Your task to perform on an android device: Open notification settings Image 0: 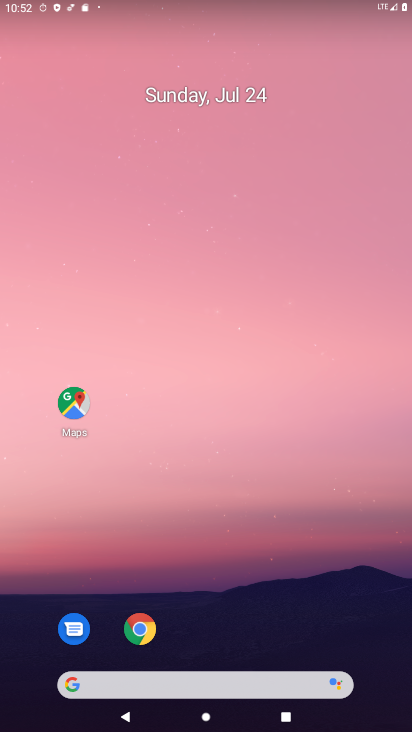
Step 0: drag from (243, 577) to (263, 131)
Your task to perform on an android device: Open notification settings Image 1: 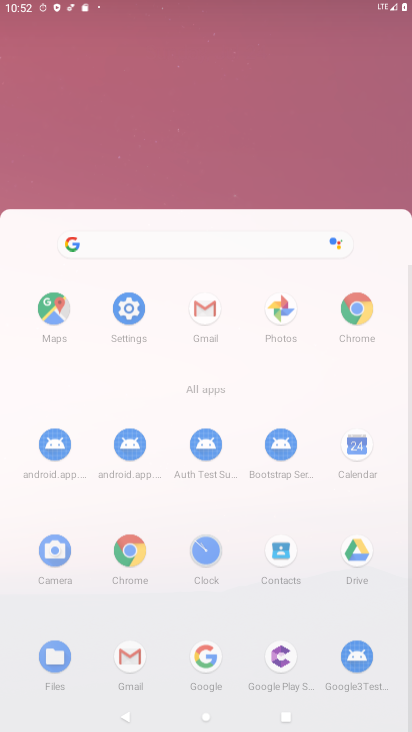
Step 1: drag from (268, 283) to (192, 82)
Your task to perform on an android device: Open notification settings Image 2: 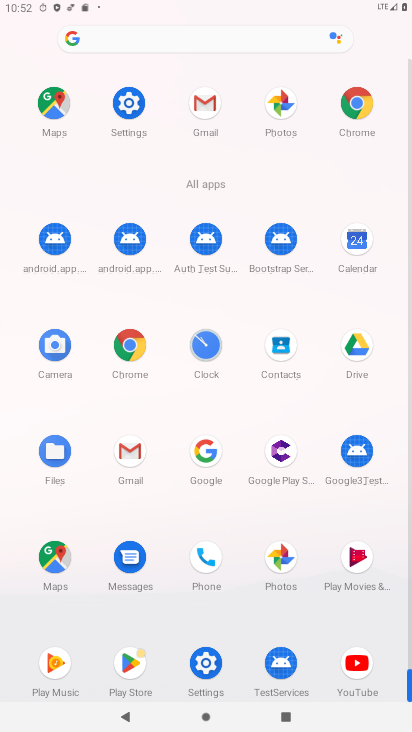
Step 2: drag from (219, 707) to (226, 331)
Your task to perform on an android device: Open notification settings Image 3: 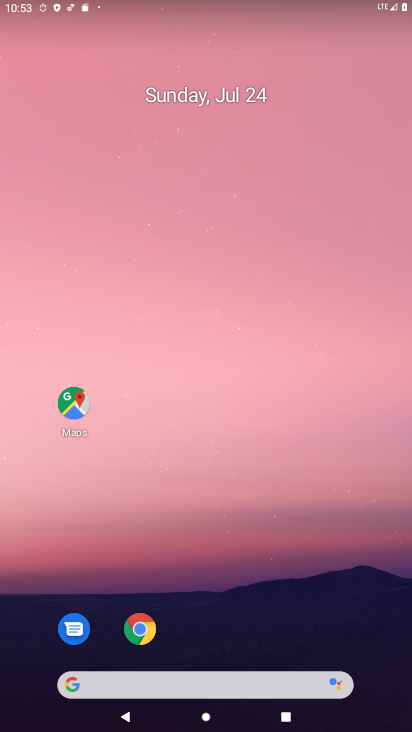
Step 3: drag from (251, 641) to (239, 312)
Your task to perform on an android device: Open notification settings Image 4: 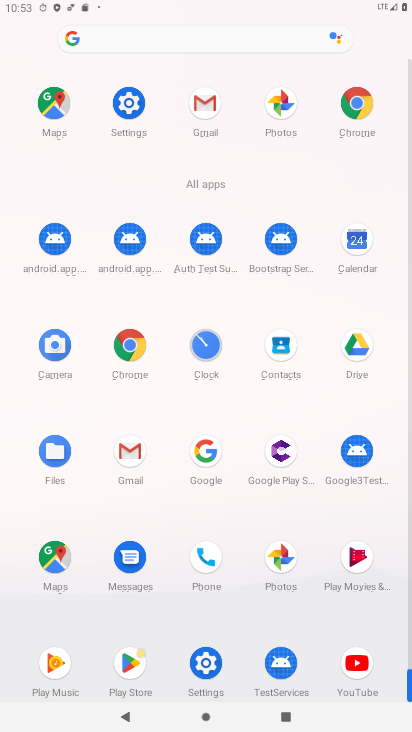
Step 4: click (208, 665)
Your task to perform on an android device: Open notification settings Image 5: 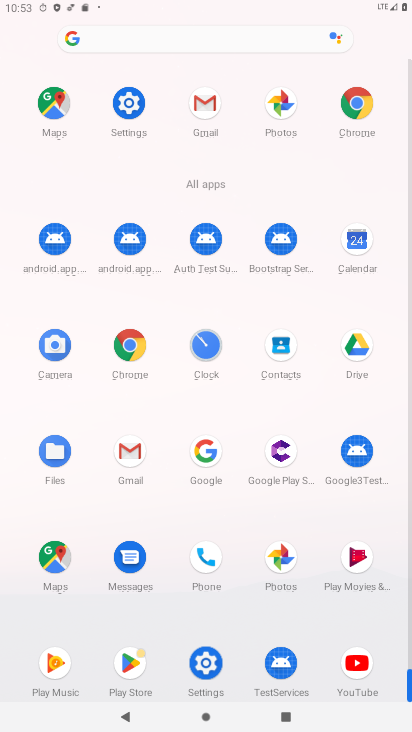
Step 5: click (206, 663)
Your task to perform on an android device: Open notification settings Image 6: 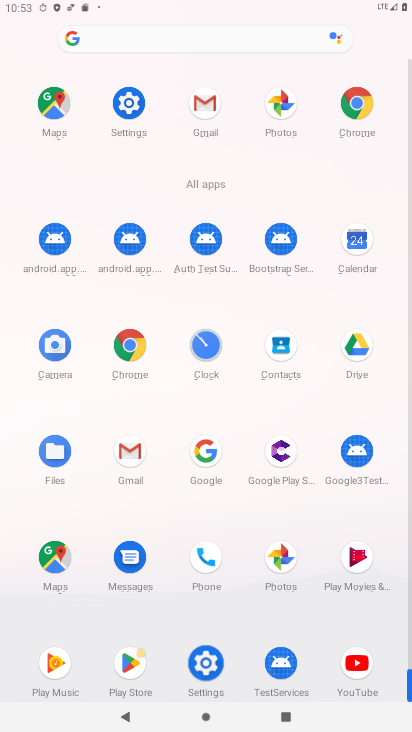
Step 6: click (207, 661)
Your task to perform on an android device: Open notification settings Image 7: 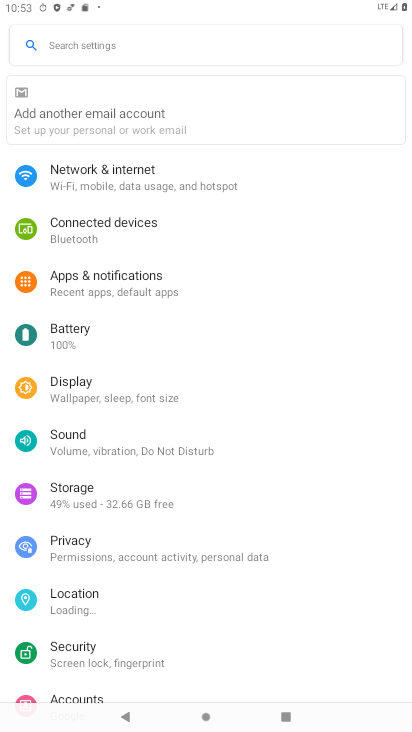
Step 7: click (129, 211)
Your task to perform on an android device: Open notification settings Image 8: 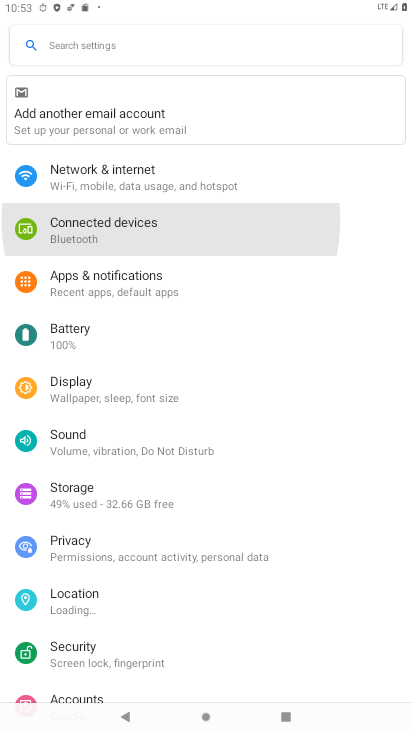
Step 8: click (128, 208)
Your task to perform on an android device: Open notification settings Image 9: 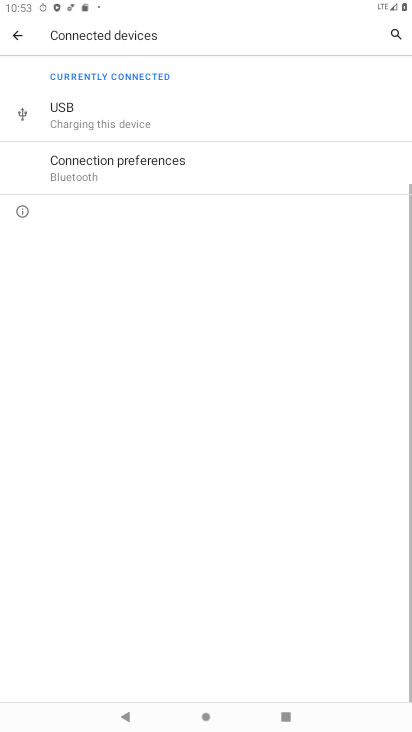
Step 9: click (107, 296)
Your task to perform on an android device: Open notification settings Image 10: 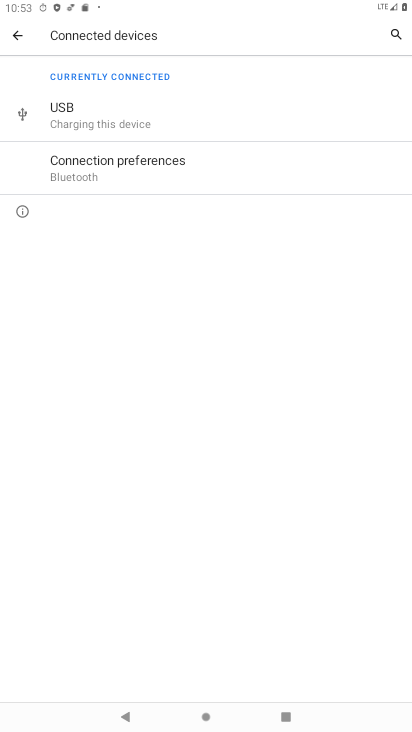
Step 10: click (4, 32)
Your task to perform on an android device: Open notification settings Image 11: 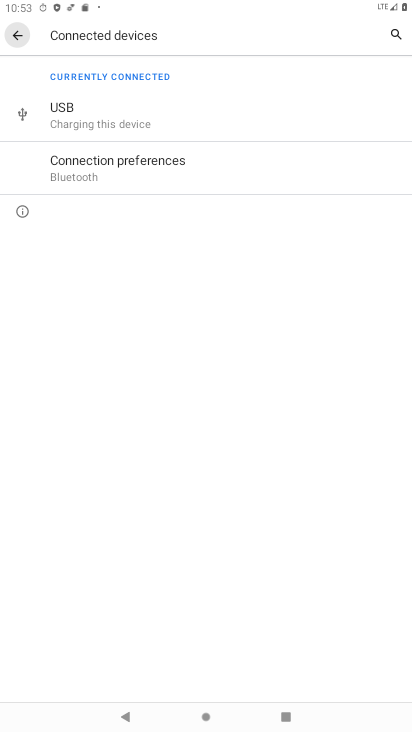
Step 11: click (12, 33)
Your task to perform on an android device: Open notification settings Image 12: 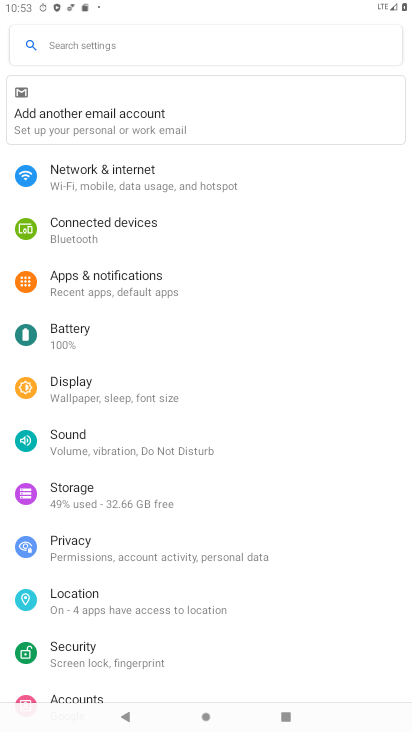
Step 12: click (109, 277)
Your task to perform on an android device: Open notification settings Image 13: 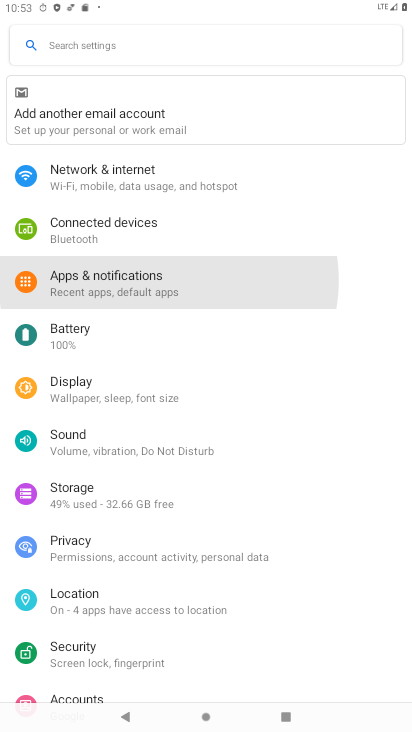
Step 13: click (109, 277)
Your task to perform on an android device: Open notification settings Image 14: 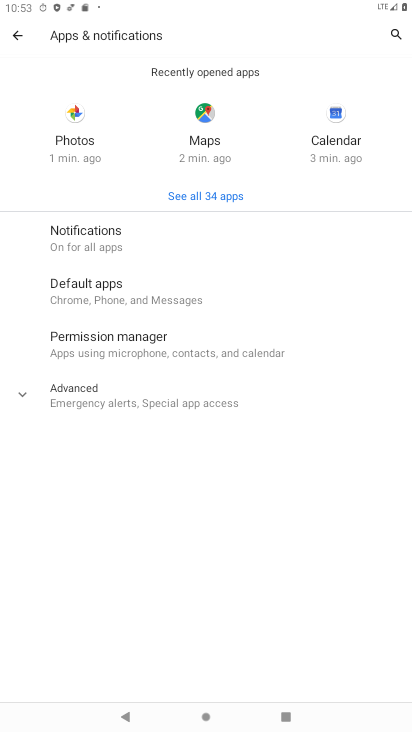
Step 14: click (87, 246)
Your task to perform on an android device: Open notification settings Image 15: 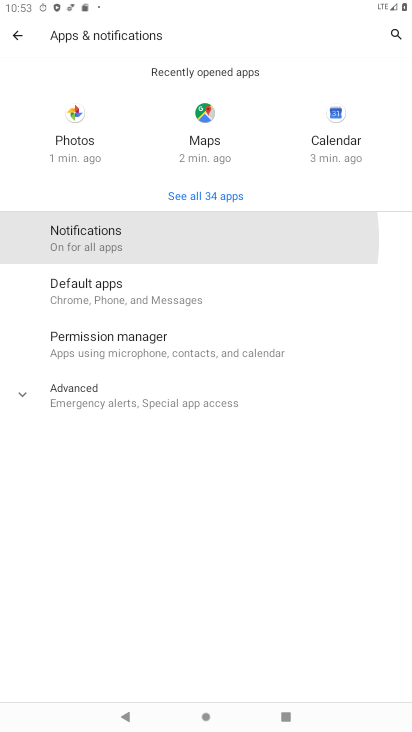
Step 15: click (87, 246)
Your task to perform on an android device: Open notification settings Image 16: 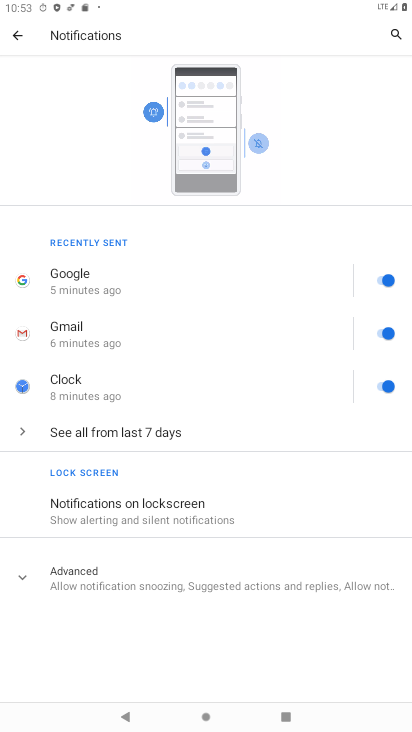
Step 16: task complete